Your task to perform on an android device: Check the news Image 0: 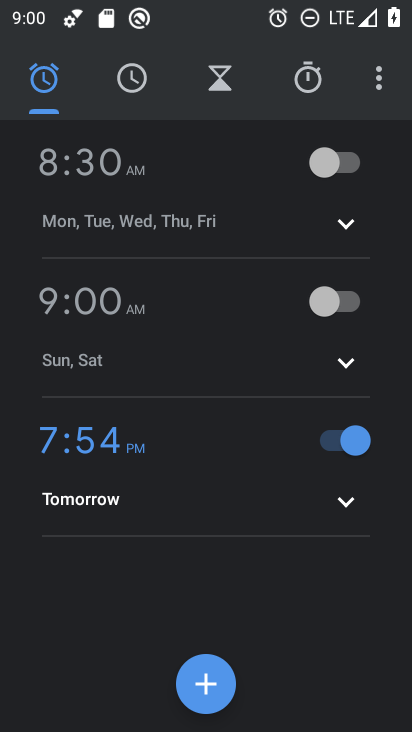
Step 0: press home button
Your task to perform on an android device: Check the news Image 1: 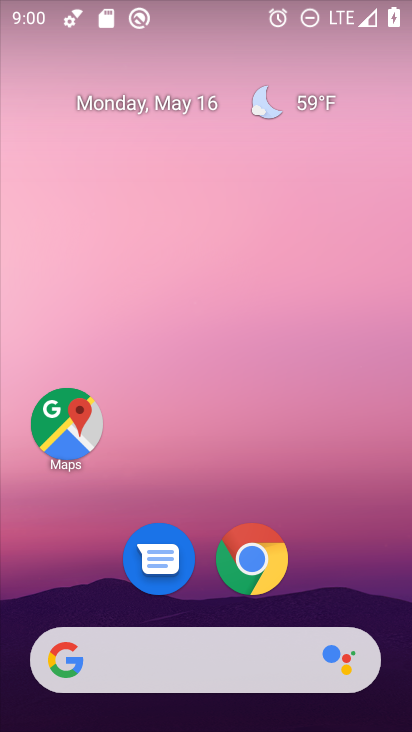
Step 1: drag from (398, 564) to (390, 65)
Your task to perform on an android device: Check the news Image 2: 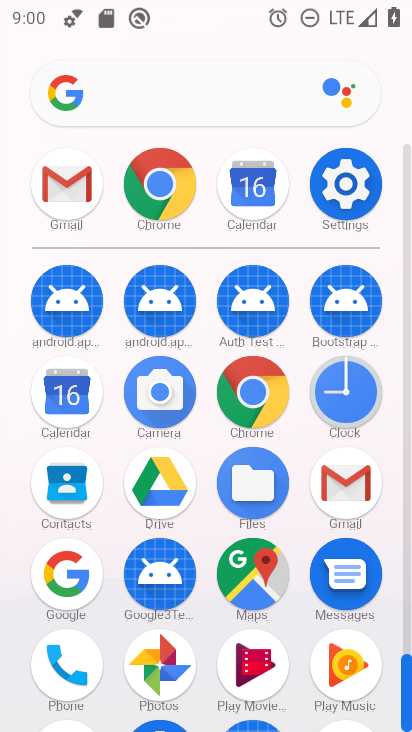
Step 2: click (276, 374)
Your task to perform on an android device: Check the news Image 3: 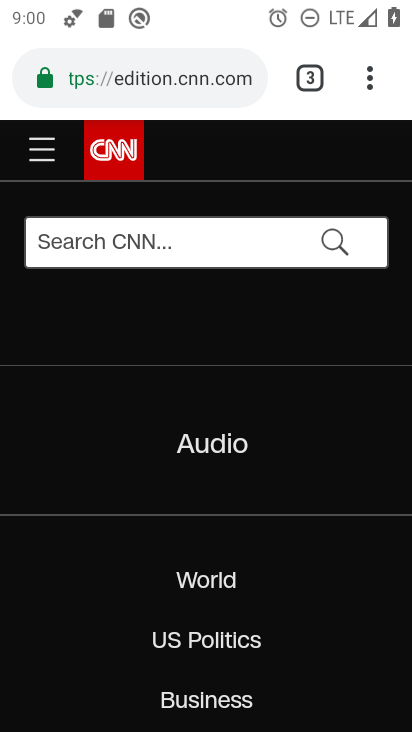
Step 3: click (222, 79)
Your task to perform on an android device: Check the news Image 4: 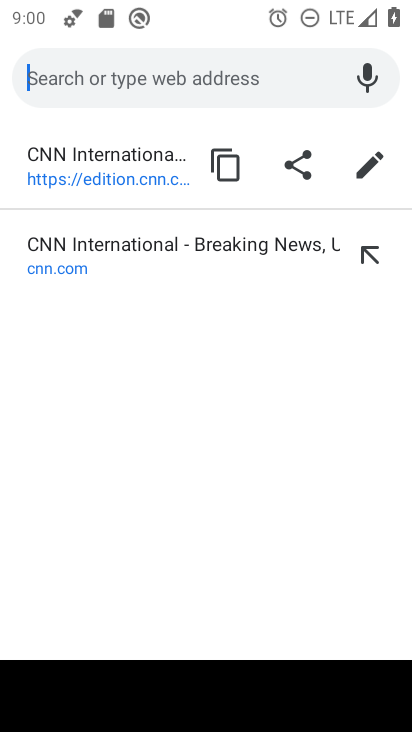
Step 4: type "cnn.com"
Your task to perform on an android device: Check the news Image 5: 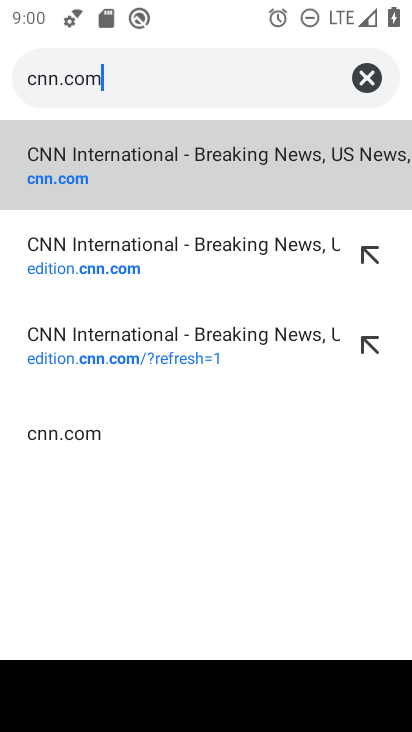
Step 5: click (75, 184)
Your task to perform on an android device: Check the news Image 6: 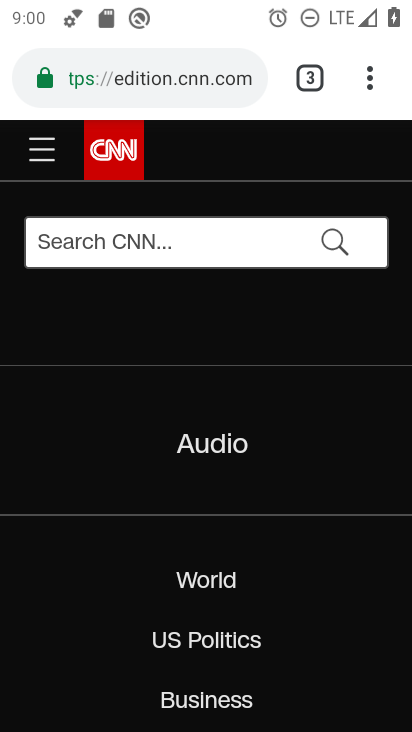
Step 6: task complete